Your task to perform on an android device: Set the phone to "Do not disturb". Image 0: 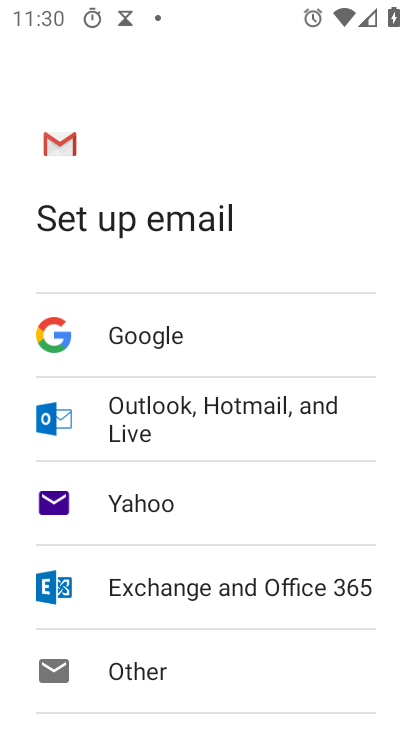
Step 0: press back button
Your task to perform on an android device: Set the phone to "Do not disturb". Image 1: 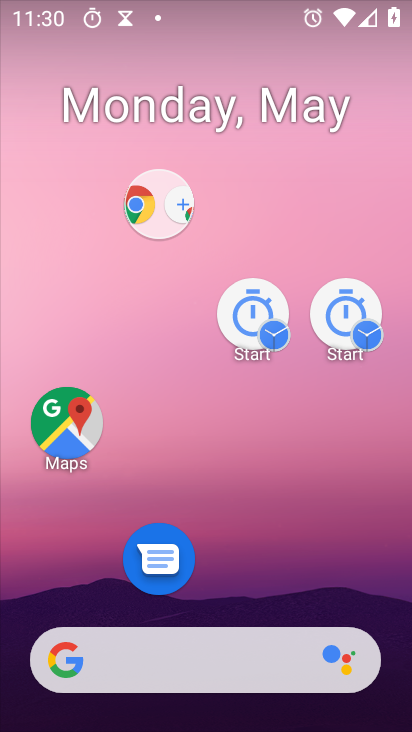
Step 1: drag from (245, 666) to (146, 117)
Your task to perform on an android device: Set the phone to "Do not disturb". Image 2: 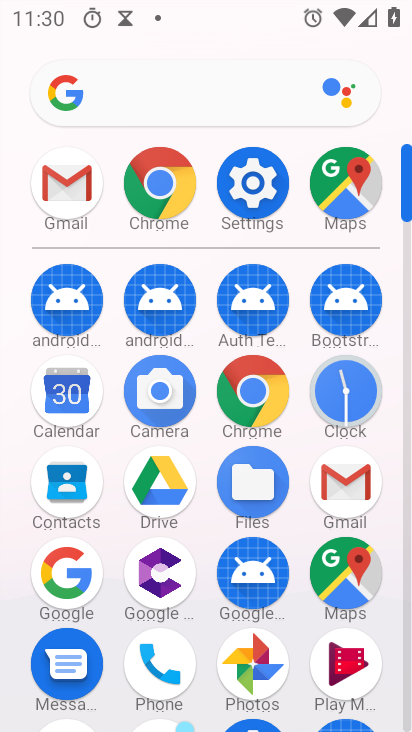
Step 2: click (244, 193)
Your task to perform on an android device: Set the phone to "Do not disturb". Image 3: 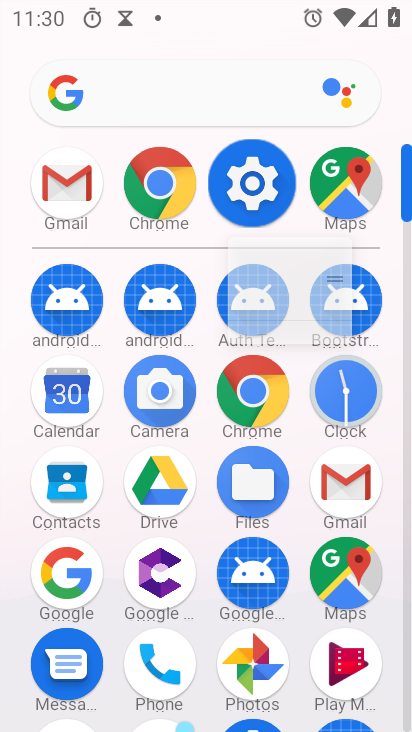
Step 3: click (247, 193)
Your task to perform on an android device: Set the phone to "Do not disturb". Image 4: 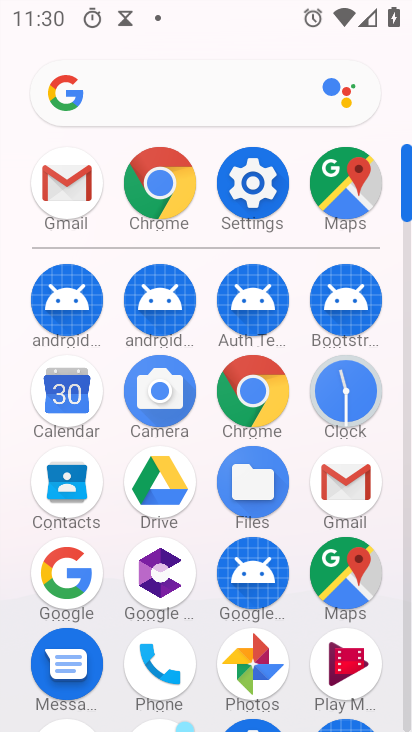
Step 4: click (252, 193)
Your task to perform on an android device: Set the phone to "Do not disturb". Image 5: 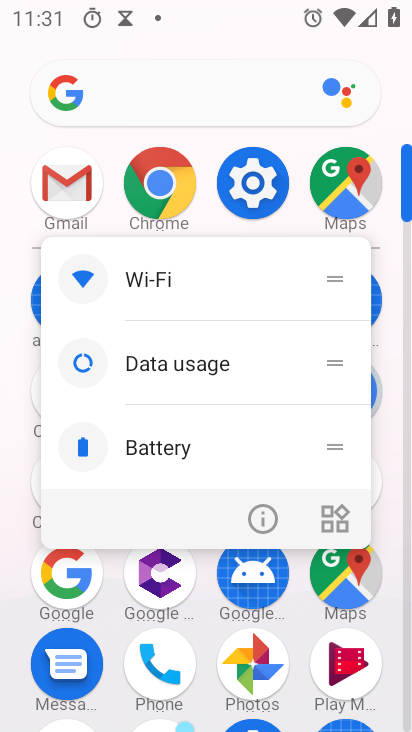
Step 5: click (265, 181)
Your task to perform on an android device: Set the phone to "Do not disturb". Image 6: 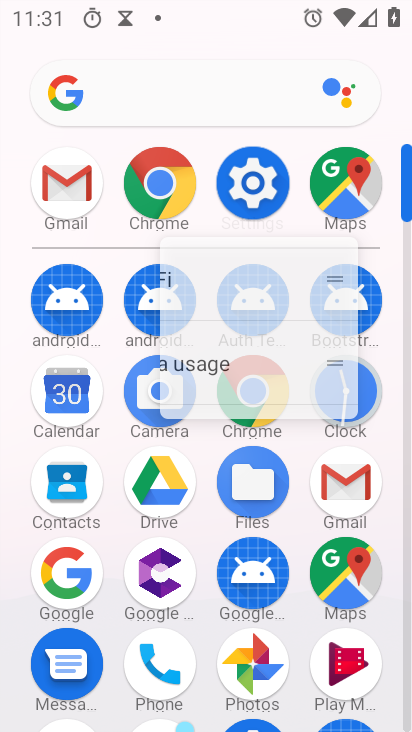
Step 6: click (255, 188)
Your task to perform on an android device: Set the phone to "Do not disturb". Image 7: 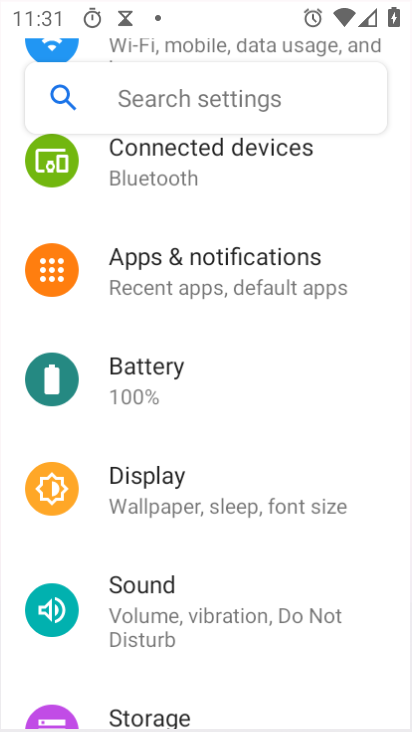
Step 7: click (254, 189)
Your task to perform on an android device: Set the phone to "Do not disturb". Image 8: 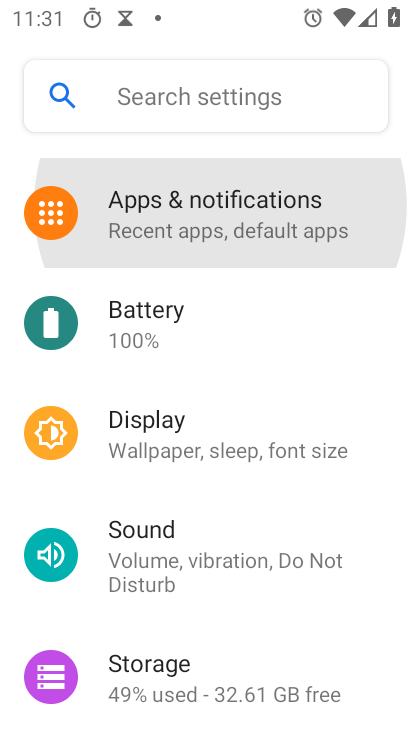
Step 8: click (255, 188)
Your task to perform on an android device: Set the phone to "Do not disturb". Image 9: 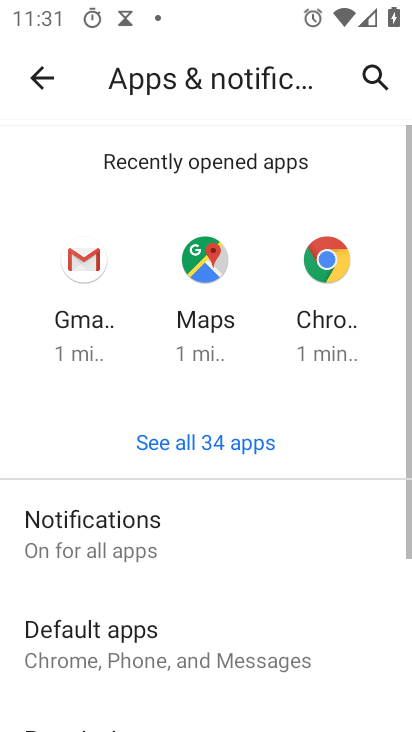
Step 9: drag from (165, 609) to (165, 274)
Your task to perform on an android device: Set the phone to "Do not disturb". Image 10: 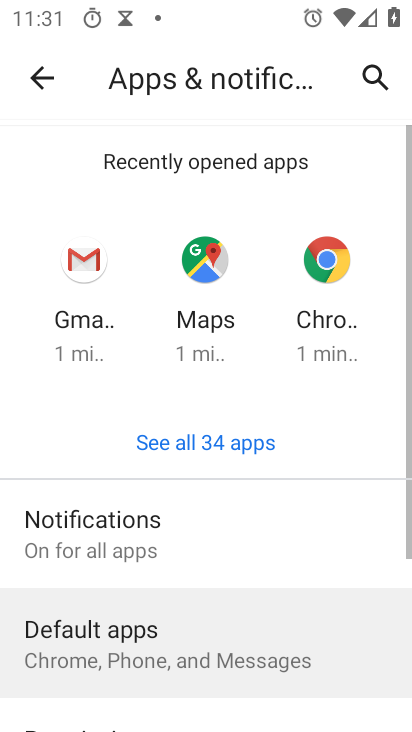
Step 10: drag from (164, 601) to (141, 216)
Your task to perform on an android device: Set the phone to "Do not disturb". Image 11: 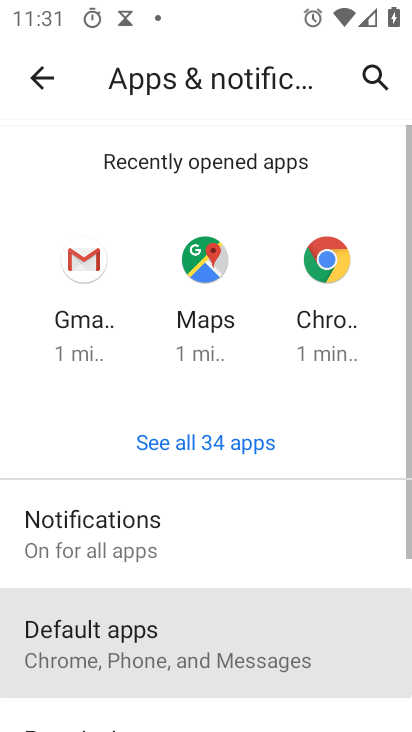
Step 11: drag from (165, 542) to (186, 147)
Your task to perform on an android device: Set the phone to "Do not disturb". Image 12: 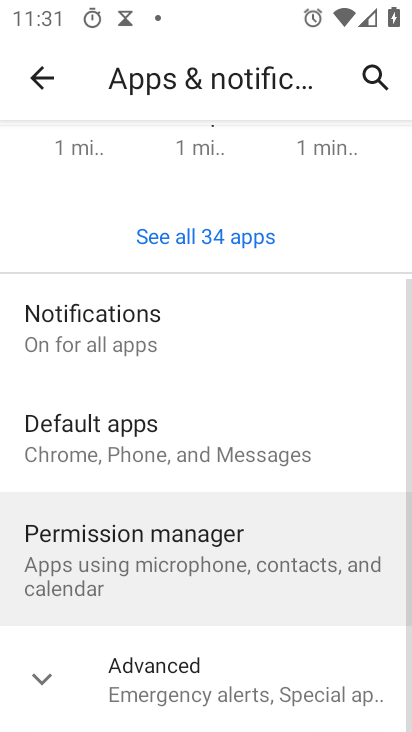
Step 12: drag from (184, 468) to (207, 92)
Your task to perform on an android device: Set the phone to "Do not disturb". Image 13: 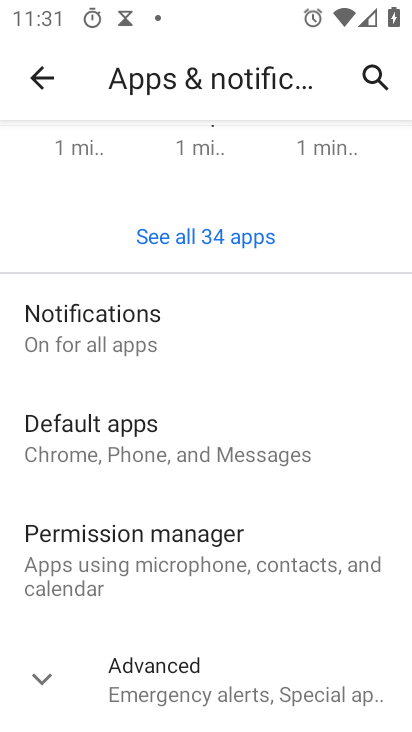
Step 13: click (34, 91)
Your task to perform on an android device: Set the phone to "Do not disturb". Image 14: 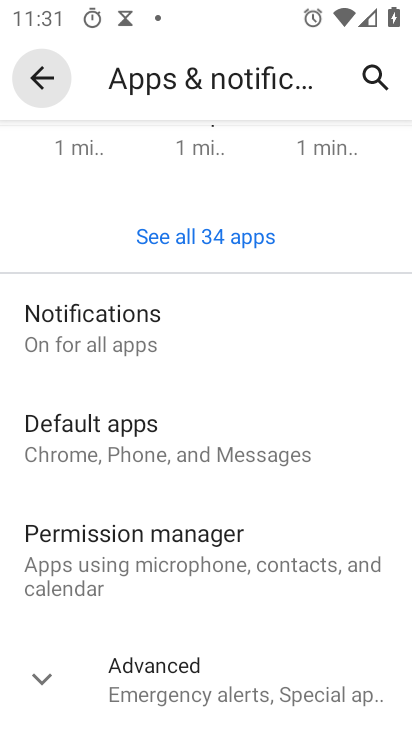
Step 14: click (35, 86)
Your task to perform on an android device: Set the phone to "Do not disturb". Image 15: 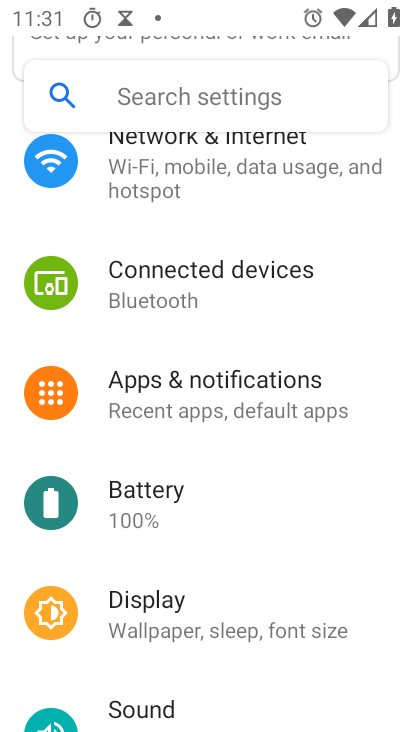
Step 15: drag from (238, 660) to (205, 183)
Your task to perform on an android device: Set the phone to "Do not disturb". Image 16: 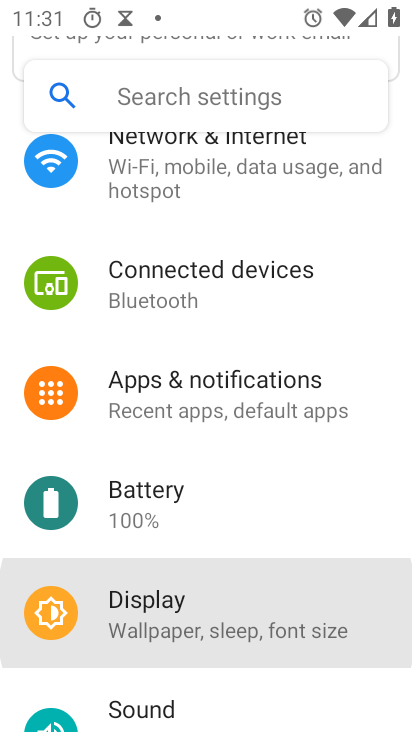
Step 16: drag from (197, 524) to (184, 285)
Your task to perform on an android device: Set the phone to "Do not disturb". Image 17: 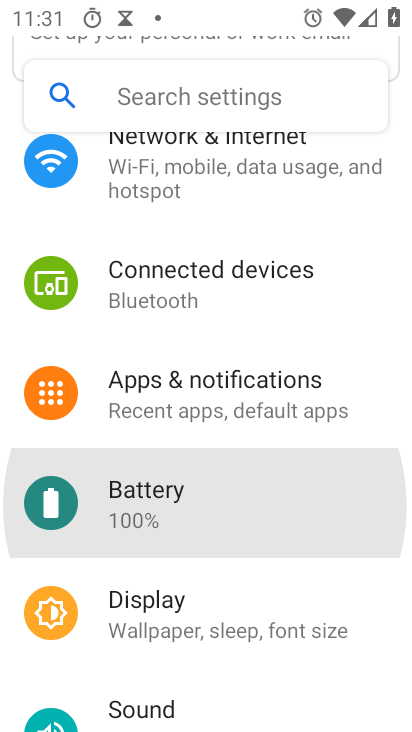
Step 17: drag from (201, 551) to (218, 237)
Your task to perform on an android device: Set the phone to "Do not disturb". Image 18: 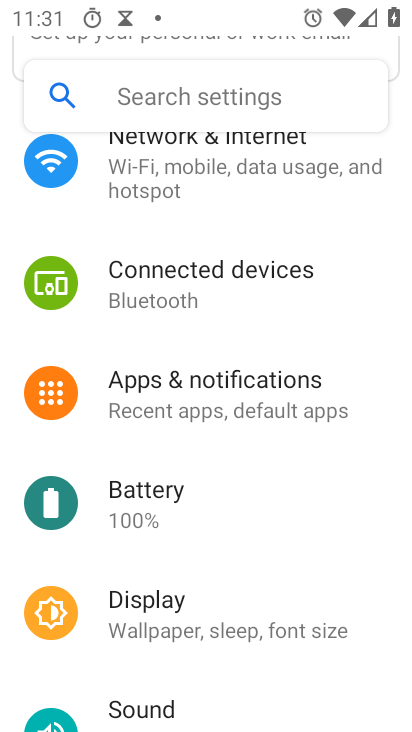
Step 18: drag from (229, 631) to (175, 241)
Your task to perform on an android device: Set the phone to "Do not disturb". Image 19: 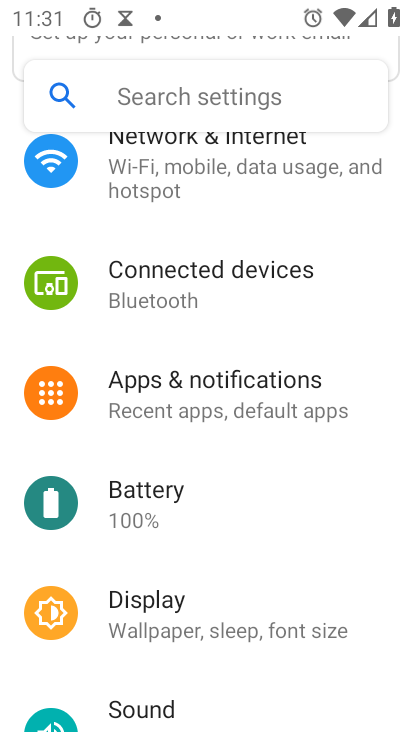
Step 19: drag from (184, 528) to (163, 234)
Your task to perform on an android device: Set the phone to "Do not disturb". Image 20: 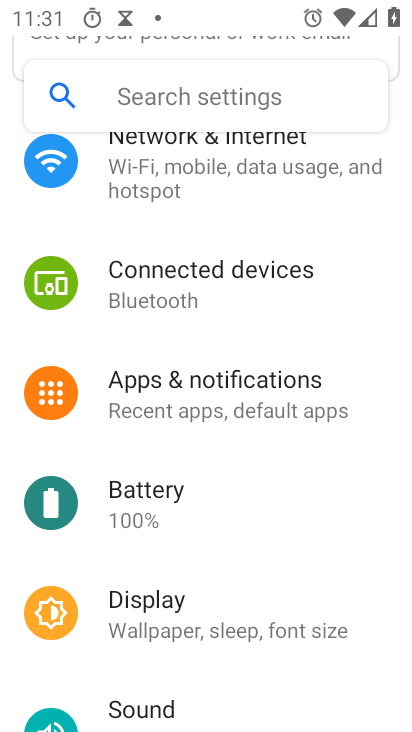
Step 20: drag from (164, 504) to (180, 255)
Your task to perform on an android device: Set the phone to "Do not disturb". Image 21: 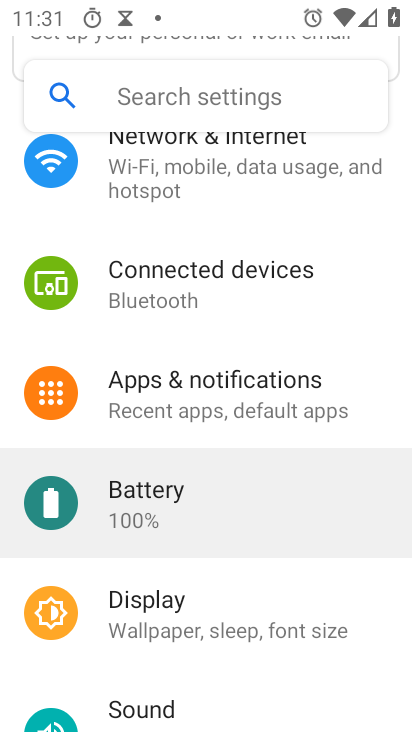
Step 21: drag from (210, 535) to (175, 185)
Your task to perform on an android device: Set the phone to "Do not disturb". Image 22: 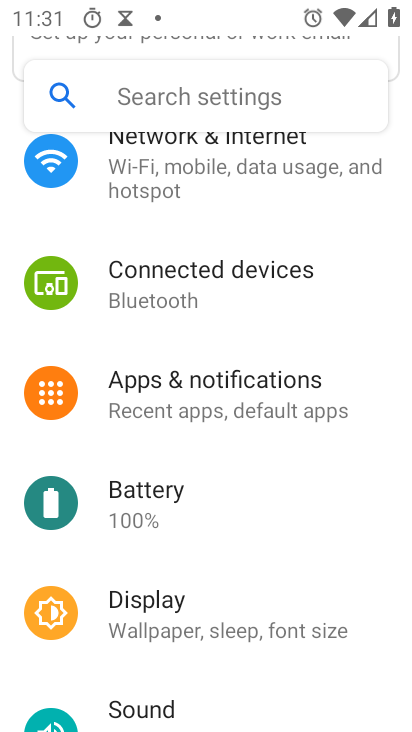
Step 22: drag from (179, 519) to (213, 17)
Your task to perform on an android device: Set the phone to "Do not disturb". Image 23: 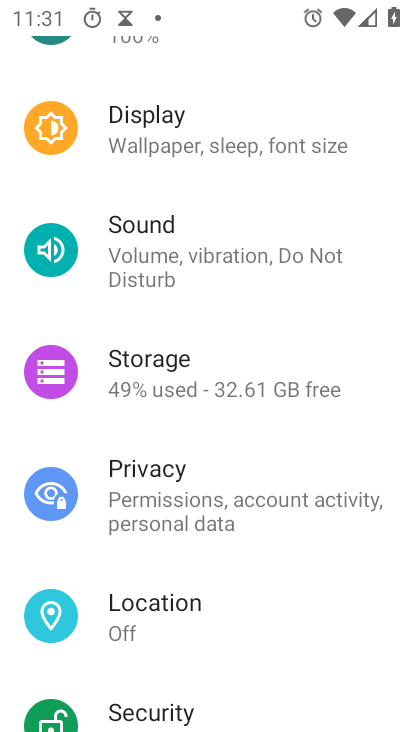
Step 23: drag from (204, 490) to (216, 179)
Your task to perform on an android device: Set the phone to "Do not disturb". Image 24: 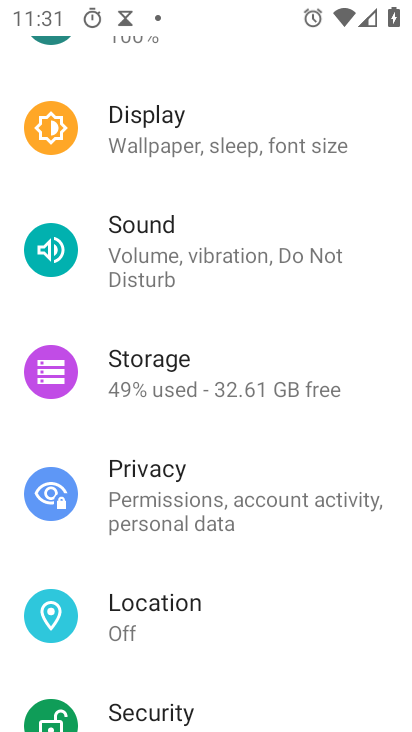
Step 24: drag from (186, 555) to (203, 215)
Your task to perform on an android device: Set the phone to "Do not disturb". Image 25: 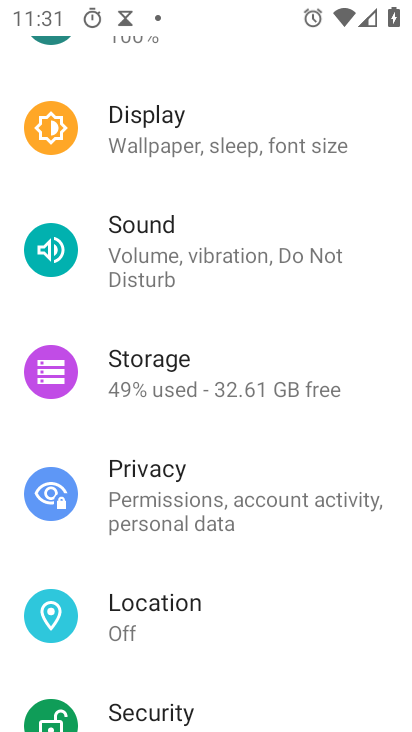
Step 25: click (237, 229)
Your task to perform on an android device: Set the phone to "Do not disturb". Image 26: 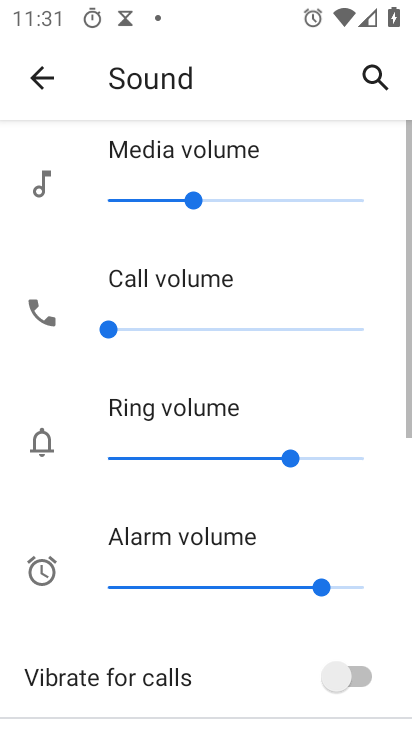
Step 26: click (235, 217)
Your task to perform on an android device: Set the phone to "Do not disturb". Image 27: 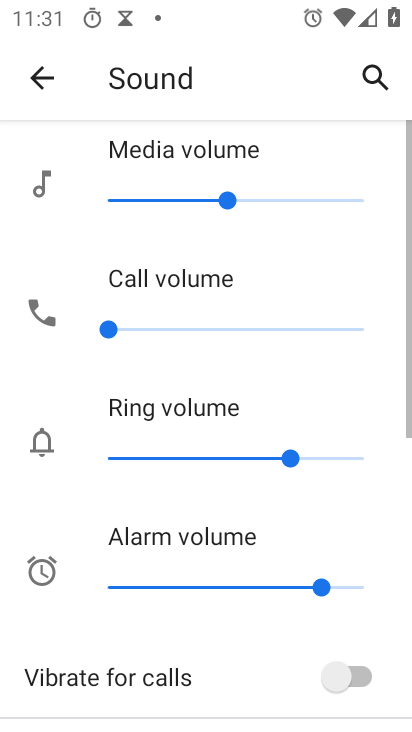
Step 27: drag from (177, 612) to (191, 95)
Your task to perform on an android device: Set the phone to "Do not disturb". Image 28: 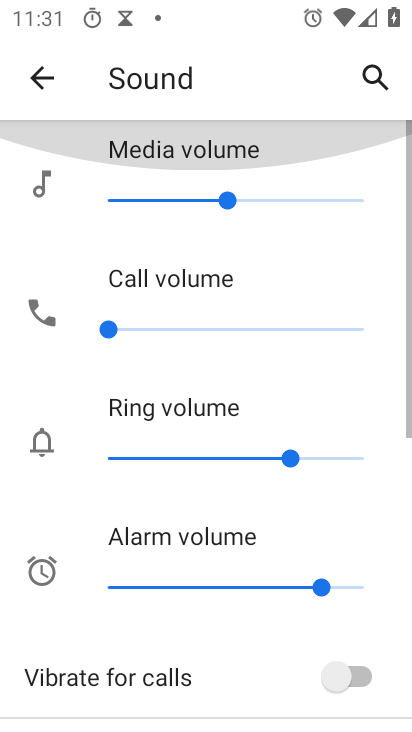
Step 28: click (223, 57)
Your task to perform on an android device: Set the phone to "Do not disturb". Image 29: 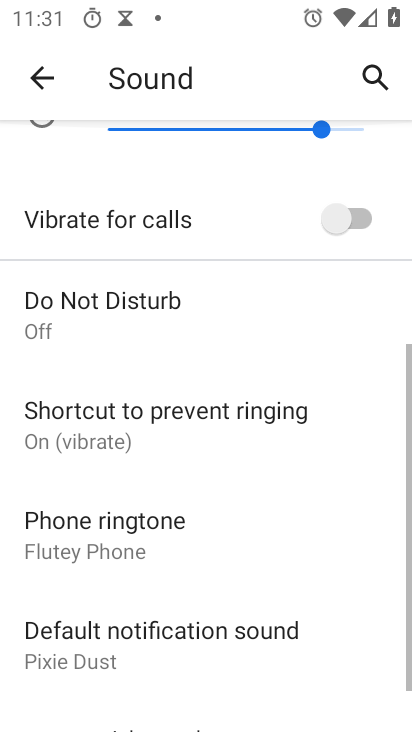
Step 29: drag from (165, 434) to (38, 82)
Your task to perform on an android device: Set the phone to "Do not disturb". Image 30: 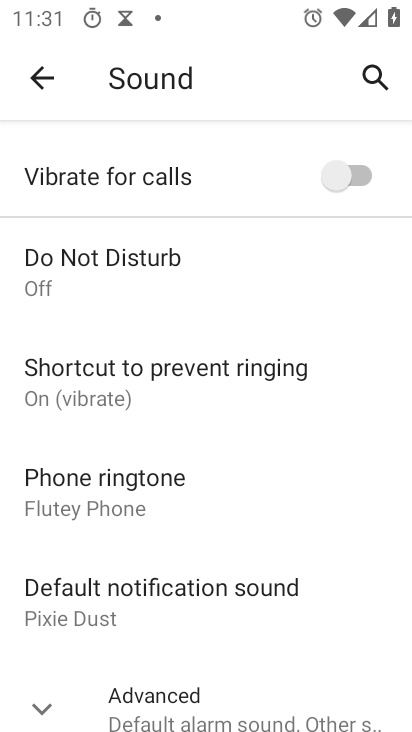
Step 30: click (35, 80)
Your task to perform on an android device: Set the phone to "Do not disturb". Image 31: 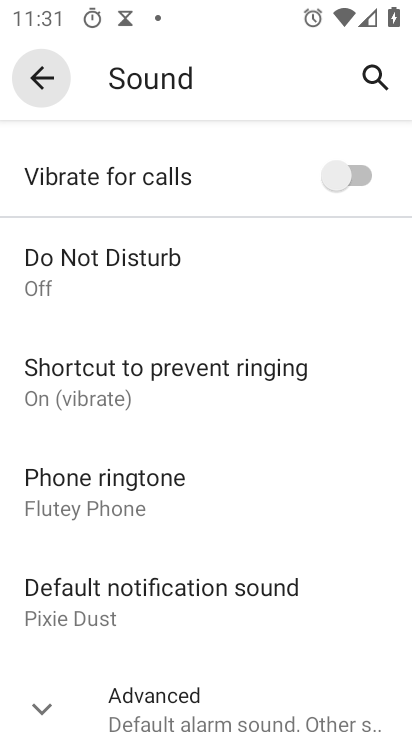
Step 31: click (35, 80)
Your task to perform on an android device: Set the phone to "Do not disturb". Image 32: 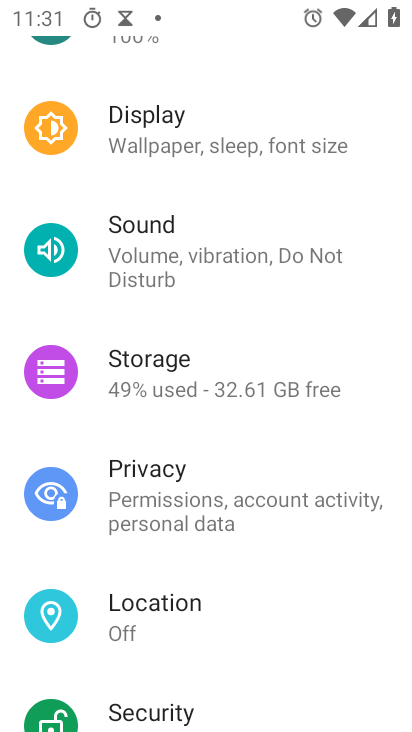
Step 32: drag from (196, 578) to (198, 51)
Your task to perform on an android device: Set the phone to "Do not disturb". Image 33: 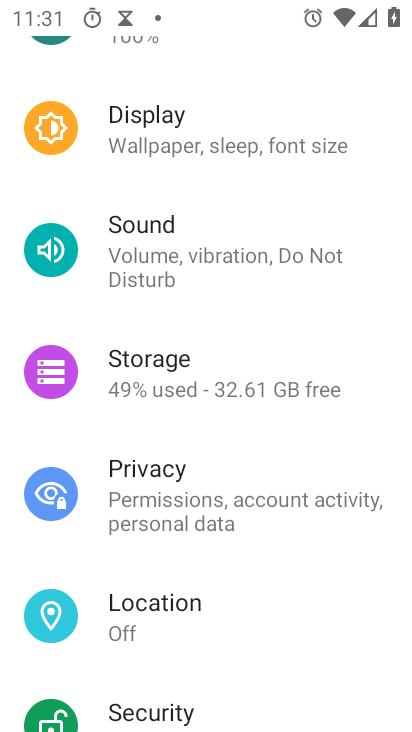
Step 33: drag from (219, 452) to (245, 116)
Your task to perform on an android device: Set the phone to "Do not disturb". Image 34: 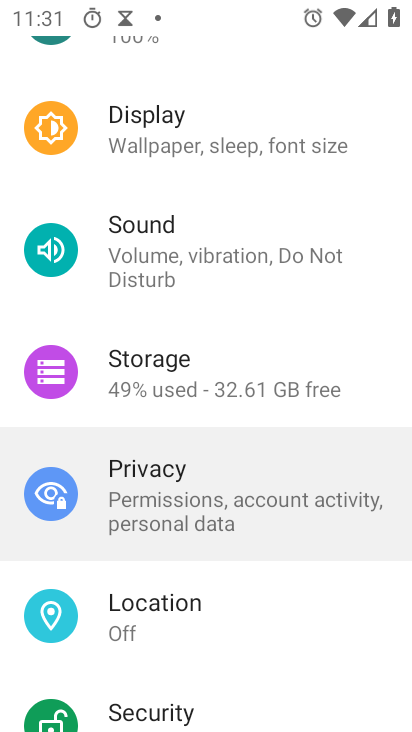
Step 34: drag from (197, 410) to (220, 49)
Your task to perform on an android device: Set the phone to "Do not disturb". Image 35: 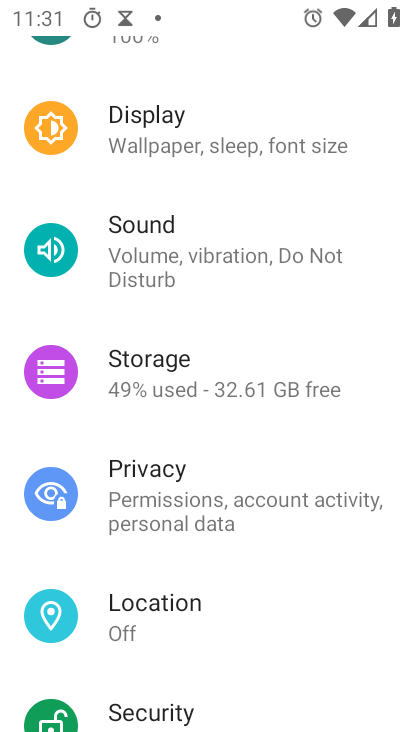
Step 35: drag from (166, 606) to (158, 184)
Your task to perform on an android device: Set the phone to "Do not disturb". Image 36: 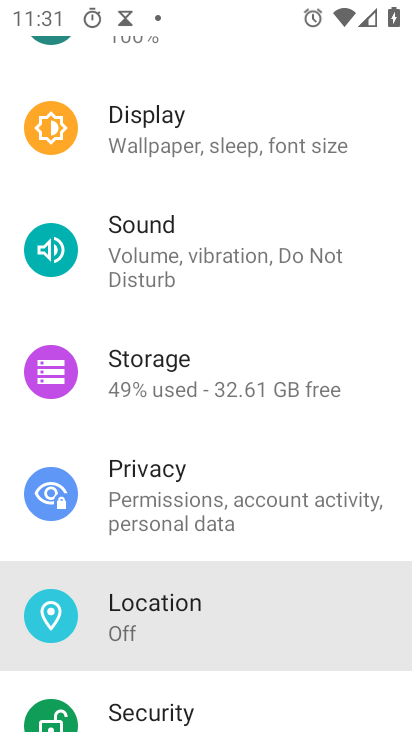
Step 36: drag from (165, 565) to (189, 230)
Your task to perform on an android device: Set the phone to "Do not disturb". Image 37: 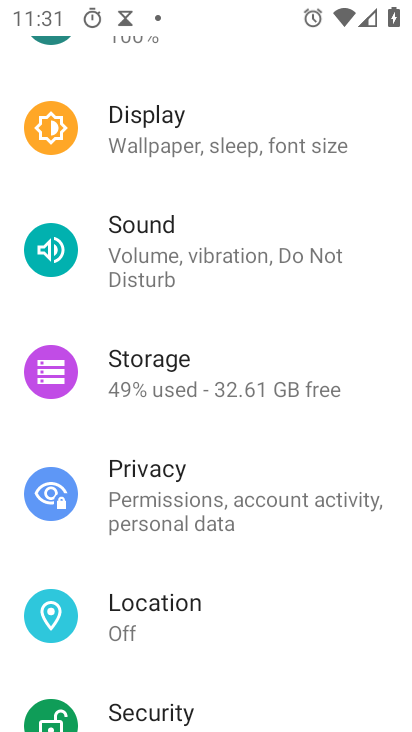
Step 37: drag from (188, 531) to (163, 129)
Your task to perform on an android device: Set the phone to "Do not disturb". Image 38: 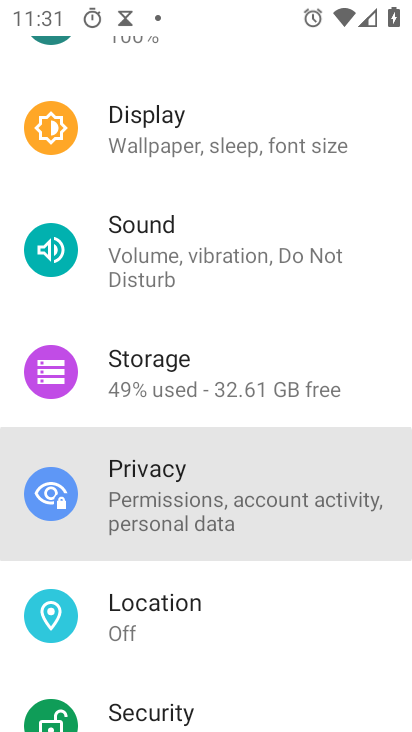
Step 38: drag from (203, 467) to (170, 152)
Your task to perform on an android device: Set the phone to "Do not disturb". Image 39: 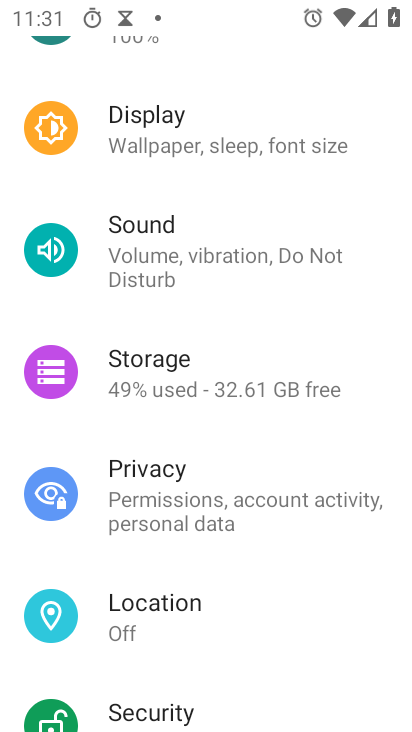
Step 39: click (170, 151)
Your task to perform on an android device: Set the phone to "Do not disturb". Image 40: 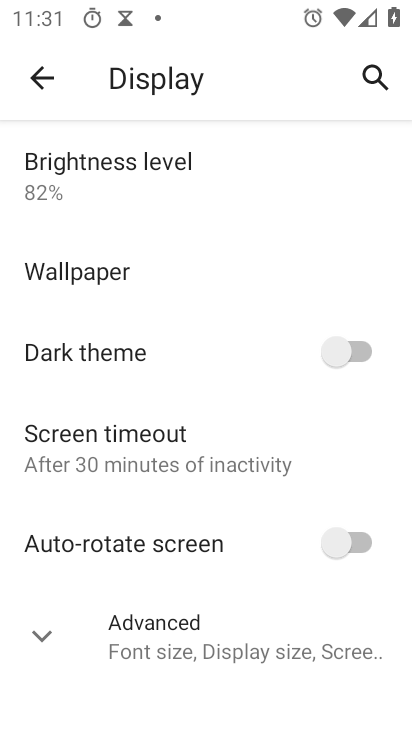
Step 40: click (144, 264)
Your task to perform on an android device: Set the phone to "Do not disturb". Image 41: 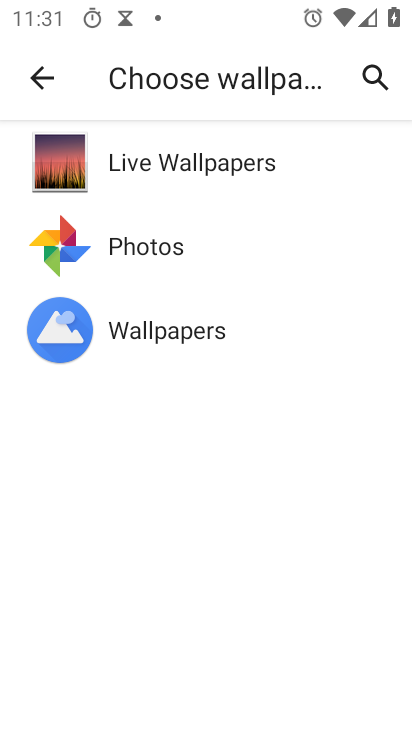
Step 41: click (46, 79)
Your task to perform on an android device: Set the phone to "Do not disturb". Image 42: 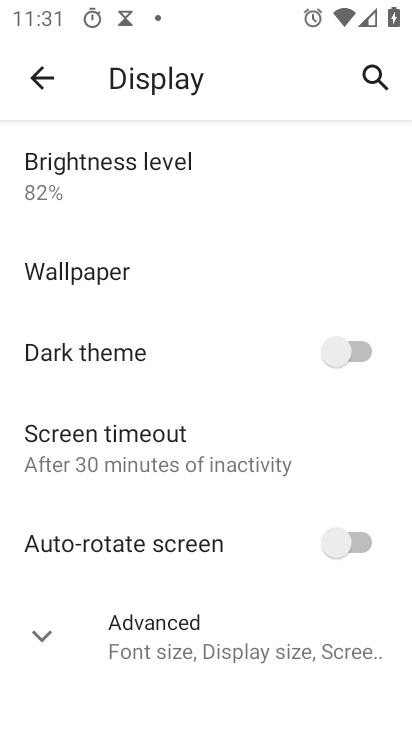
Step 42: click (31, 83)
Your task to perform on an android device: Set the phone to "Do not disturb". Image 43: 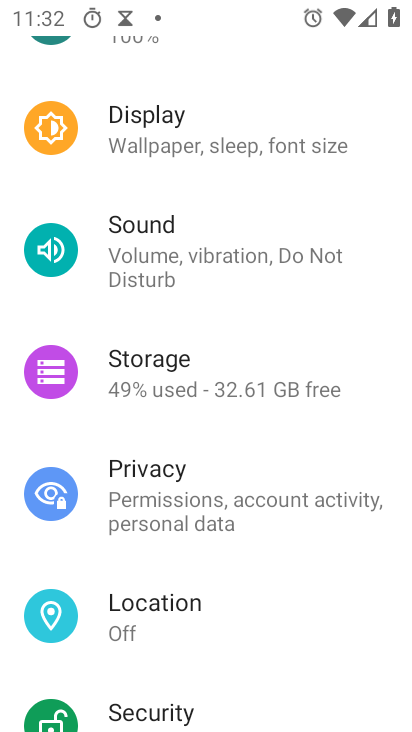
Step 43: click (154, 274)
Your task to perform on an android device: Set the phone to "Do not disturb". Image 44: 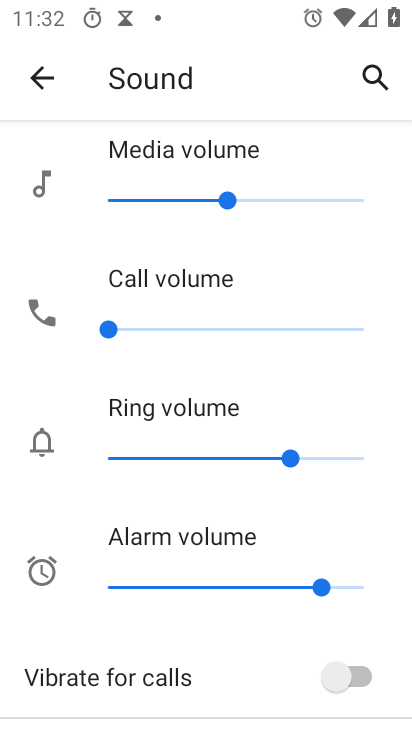
Step 44: drag from (196, 408) to (109, 50)
Your task to perform on an android device: Set the phone to "Do not disturb". Image 45: 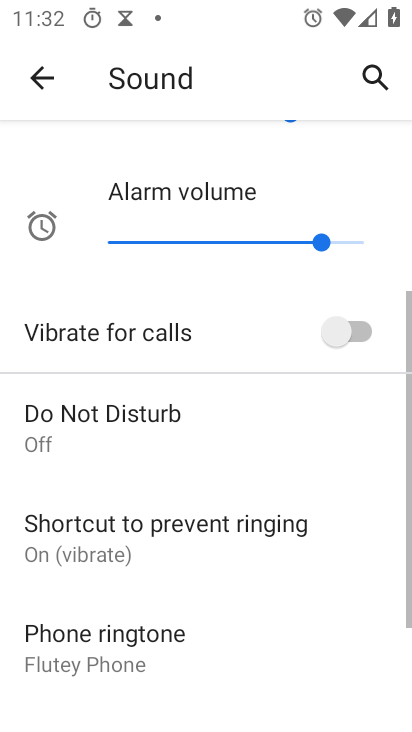
Step 45: drag from (88, 421) to (136, 16)
Your task to perform on an android device: Set the phone to "Do not disturb". Image 46: 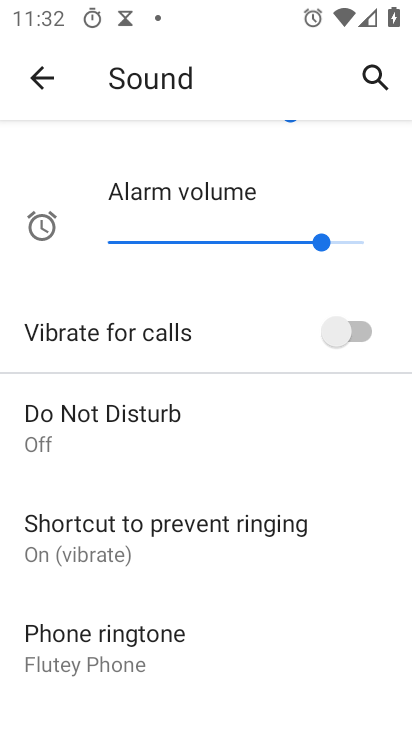
Step 46: click (98, 411)
Your task to perform on an android device: Set the phone to "Do not disturb". Image 47: 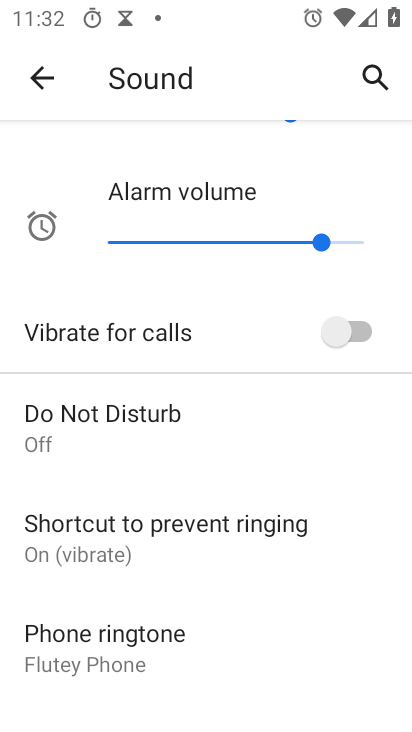
Step 47: click (98, 411)
Your task to perform on an android device: Set the phone to "Do not disturb". Image 48: 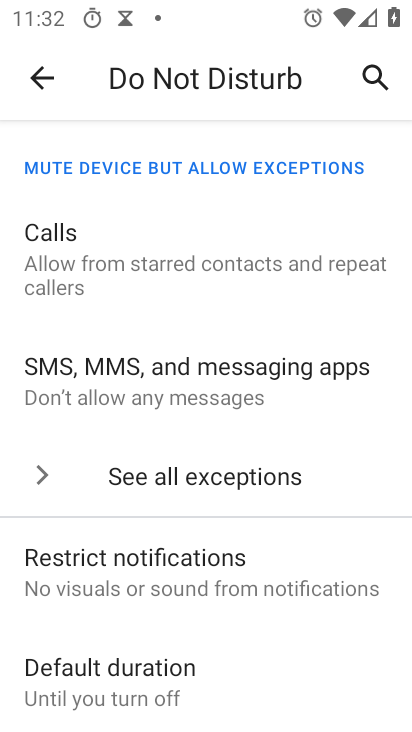
Step 48: task complete